Your task to perform on an android device: turn notification dots off Image 0: 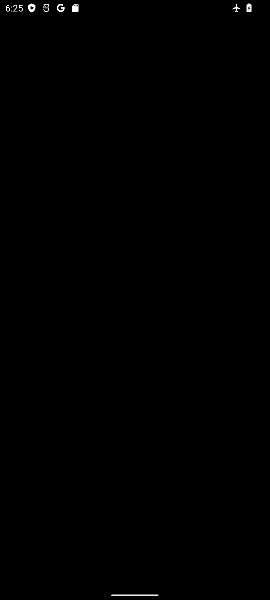
Step 0: press home button
Your task to perform on an android device: turn notification dots off Image 1: 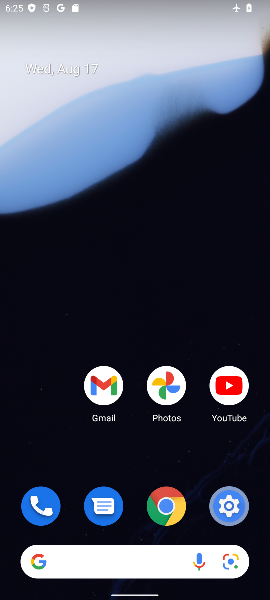
Step 1: drag from (123, 459) to (223, 71)
Your task to perform on an android device: turn notification dots off Image 2: 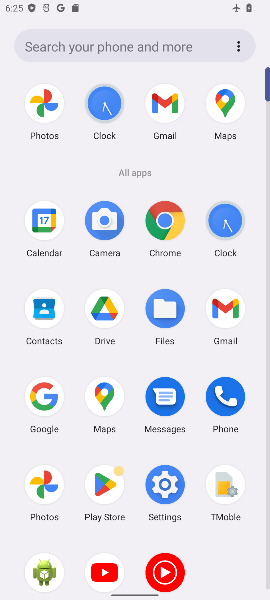
Step 2: click (167, 492)
Your task to perform on an android device: turn notification dots off Image 3: 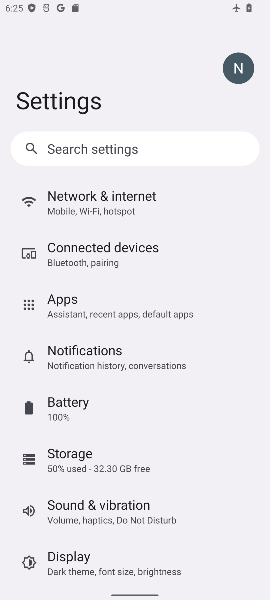
Step 3: click (135, 357)
Your task to perform on an android device: turn notification dots off Image 4: 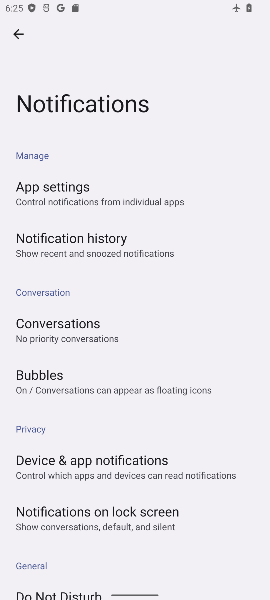
Step 4: drag from (199, 497) to (219, 127)
Your task to perform on an android device: turn notification dots off Image 5: 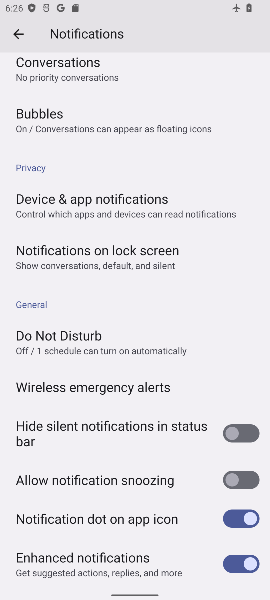
Step 5: click (237, 515)
Your task to perform on an android device: turn notification dots off Image 6: 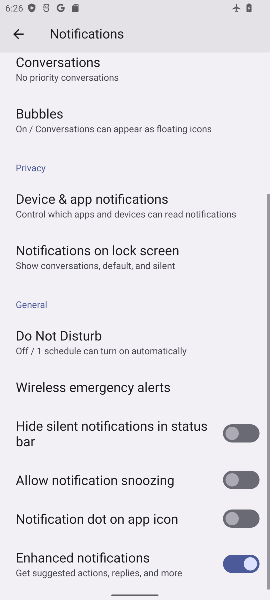
Step 6: task complete